Your task to perform on an android device: What's on my calendar today? Image 0: 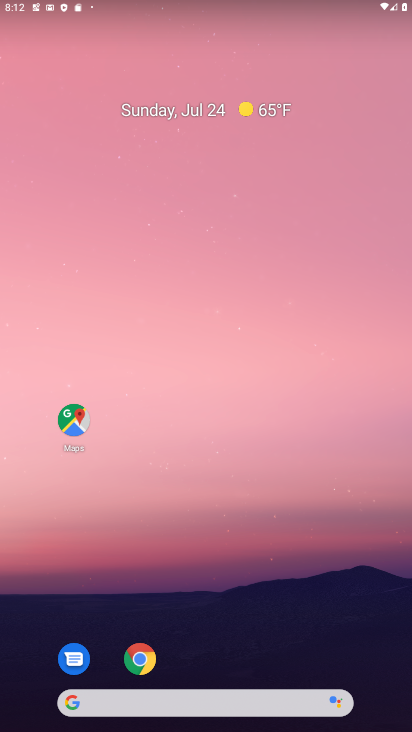
Step 0: drag from (296, 658) to (348, 47)
Your task to perform on an android device: What's on my calendar today? Image 1: 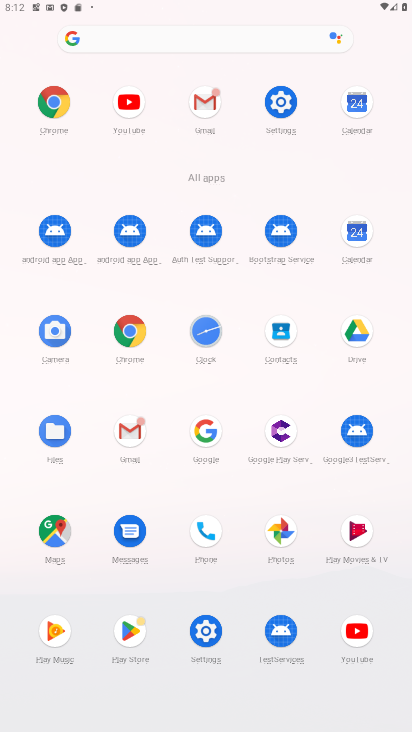
Step 1: click (360, 102)
Your task to perform on an android device: What's on my calendar today? Image 2: 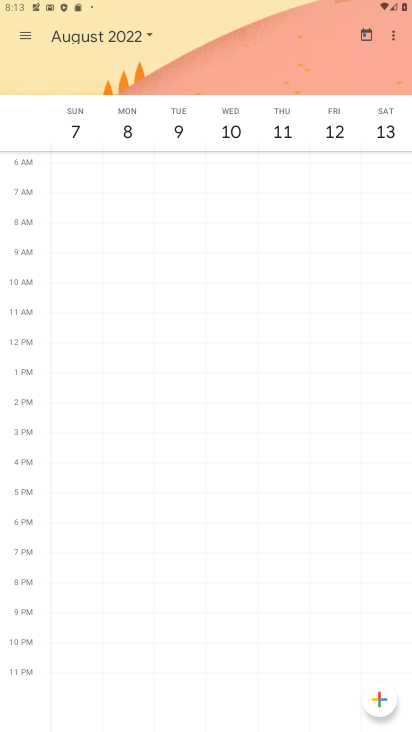
Step 2: click (146, 32)
Your task to perform on an android device: What's on my calendar today? Image 3: 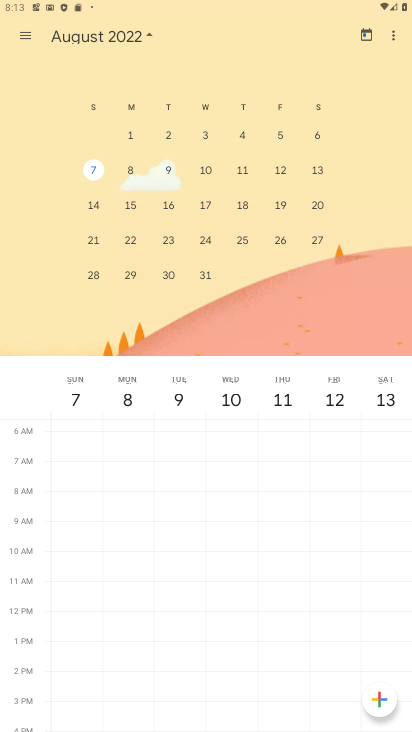
Step 3: click (367, 37)
Your task to perform on an android device: What's on my calendar today? Image 4: 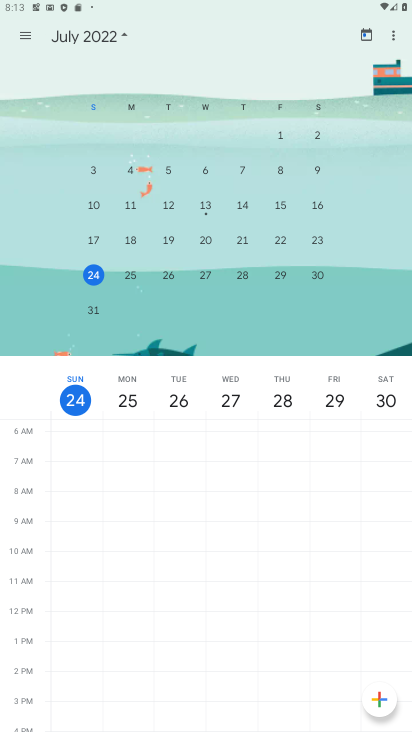
Step 4: click (18, 30)
Your task to perform on an android device: What's on my calendar today? Image 5: 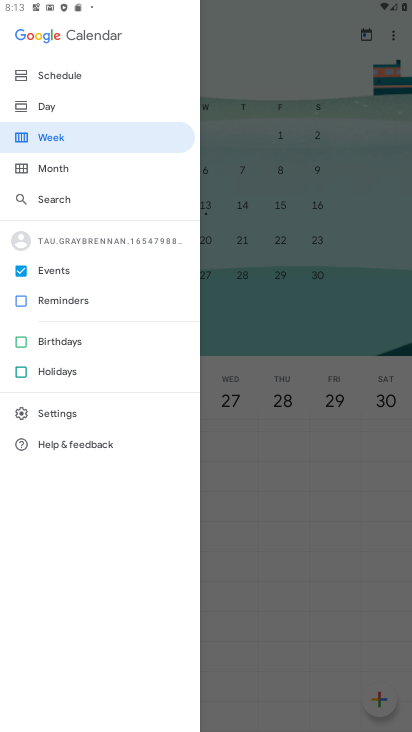
Step 5: click (41, 105)
Your task to perform on an android device: What's on my calendar today? Image 6: 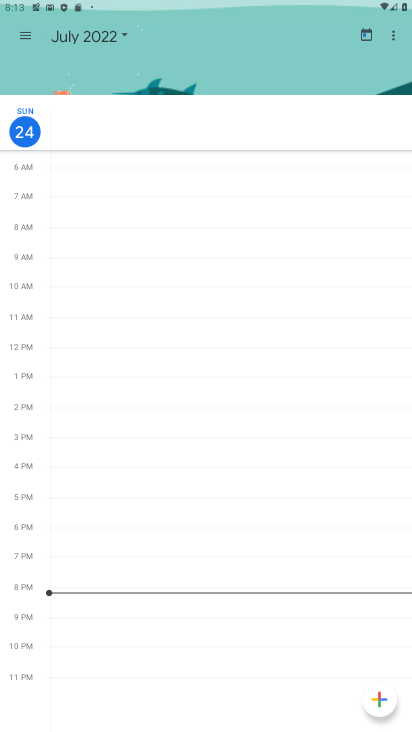
Step 6: click (26, 38)
Your task to perform on an android device: What's on my calendar today? Image 7: 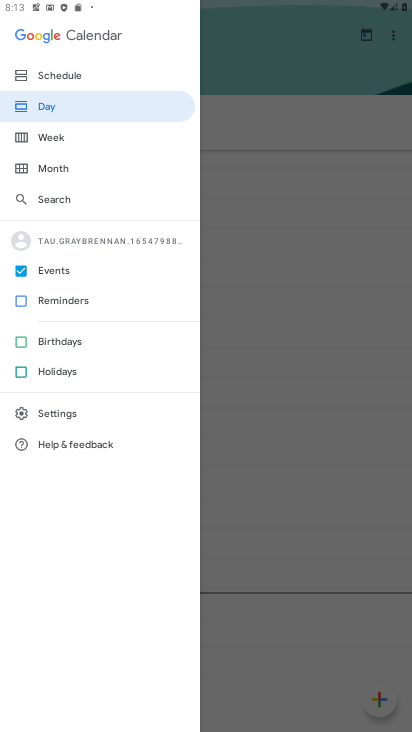
Step 7: click (25, 301)
Your task to perform on an android device: What's on my calendar today? Image 8: 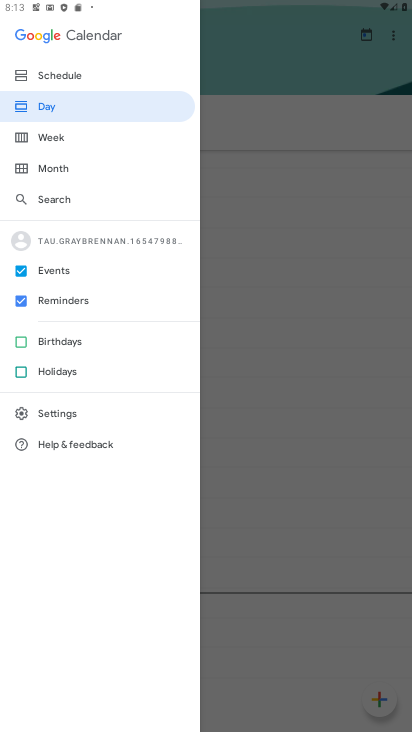
Step 8: click (20, 337)
Your task to perform on an android device: What's on my calendar today? Image 9: 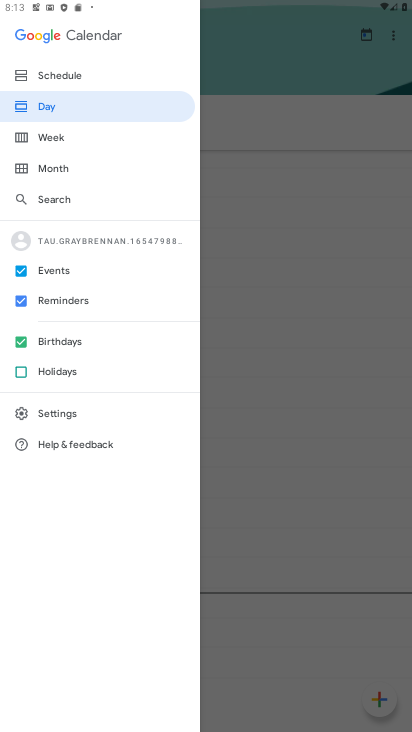
Step 9: click (21, 372)
Your task to perform on an android device: What's on my calendar today? Image 10: 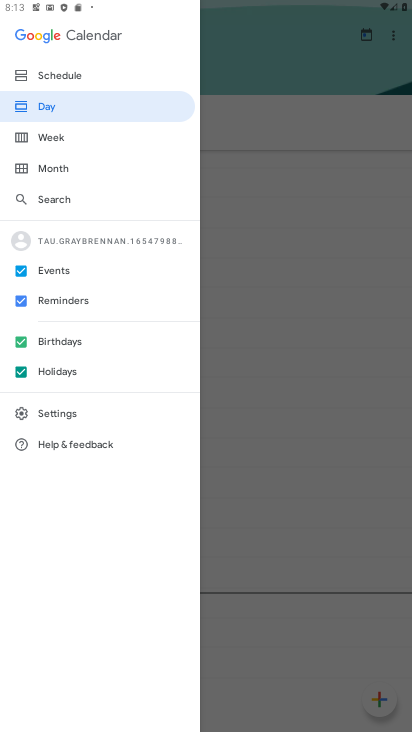
Step 10: click (32, 110)
Your task to perform on an android device: What's on my calendar today? Image 11: 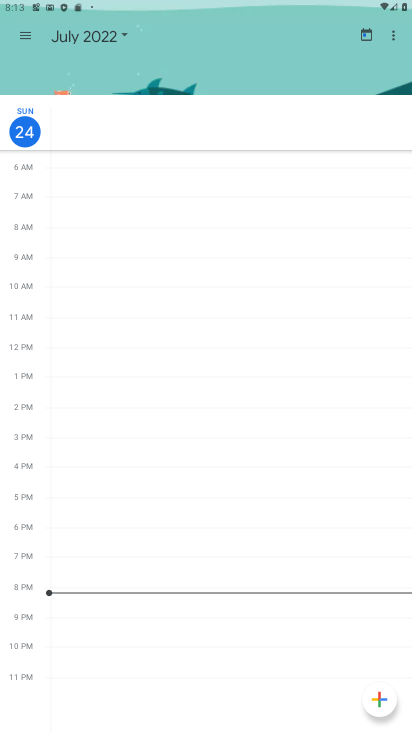
Step 11: task complete